Your task to perform on an android device: search for outdoor chairs on article.com Image 0: 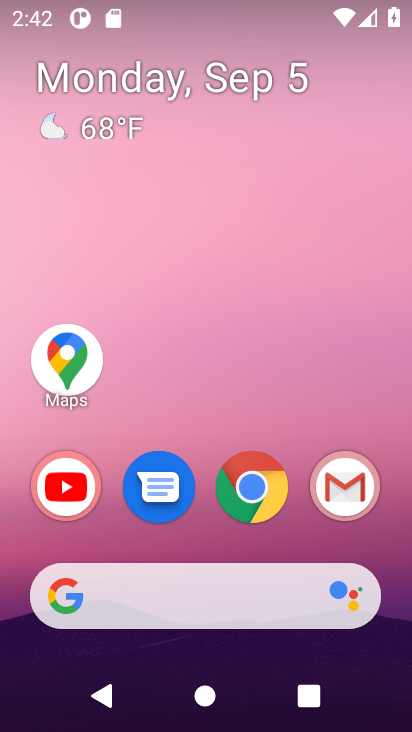
Step 0: click (231, 505)
Your task to perform on an android device: search for outdoor chairs on article.com Image 1: 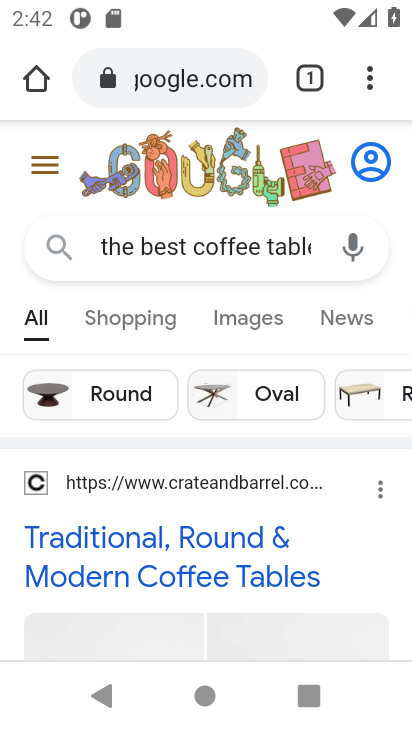
Step 1: click (189, 81)
Your task to perform on an android device: search for outdoor chairs on article.com Image 2: 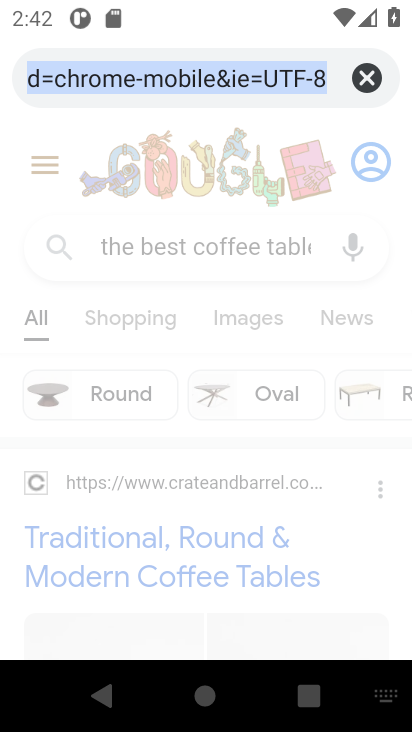
Step 2: click (358, 78)
Your task to perform on an android device: search for outdoor chairs on article.com Image 3: 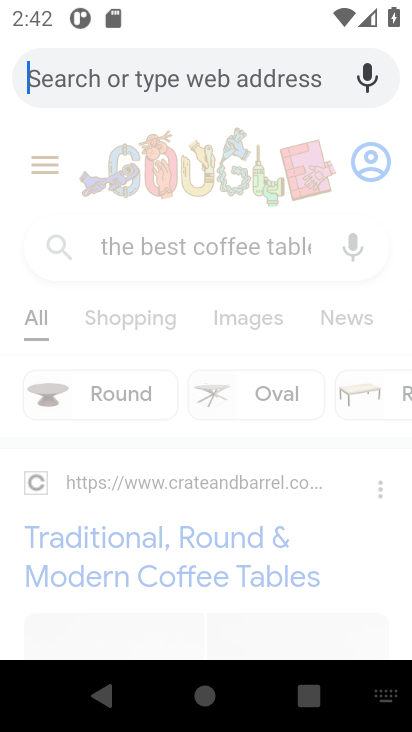
Step 3: type "outdoor chairs on article.com"
Your task to perform on an android device: search for outdoor chairs on article.com Image 4: 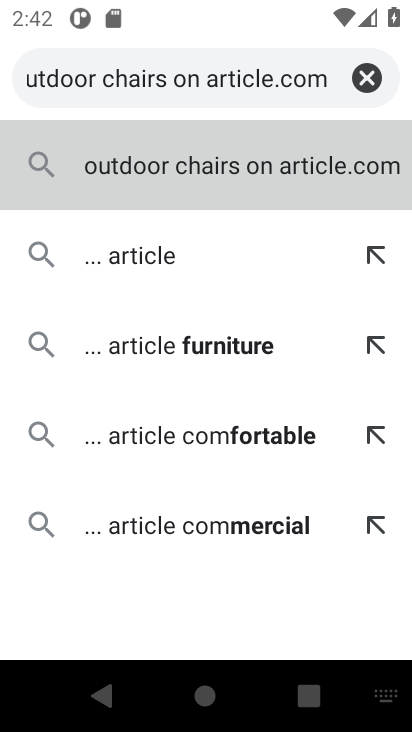
Step 4: click (222, 150)
Your task to perform on an android device: search for outdoor chairs on article.com Image 5: 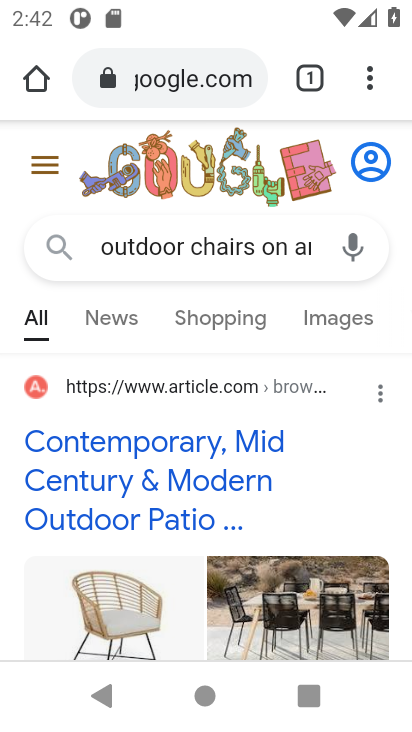
Step 5: task complete